Your task to perform on an android device: What's the weather going to be this weekend? Image 0: 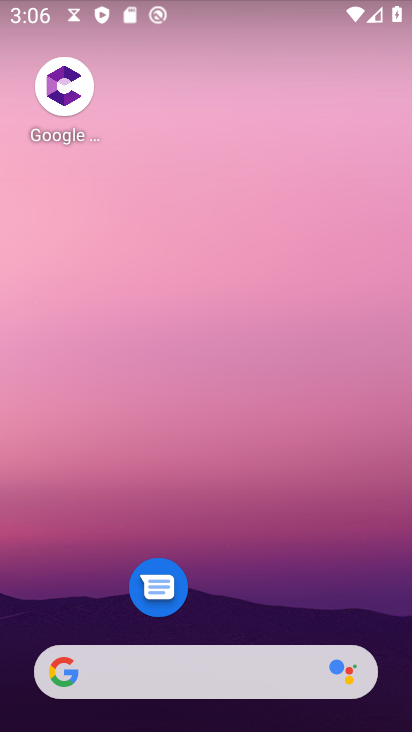
Step 0: drag from (312, 593) to (257, 274)
Your task to perform on an android device: What's the weather going to be this weekend? Image 1: 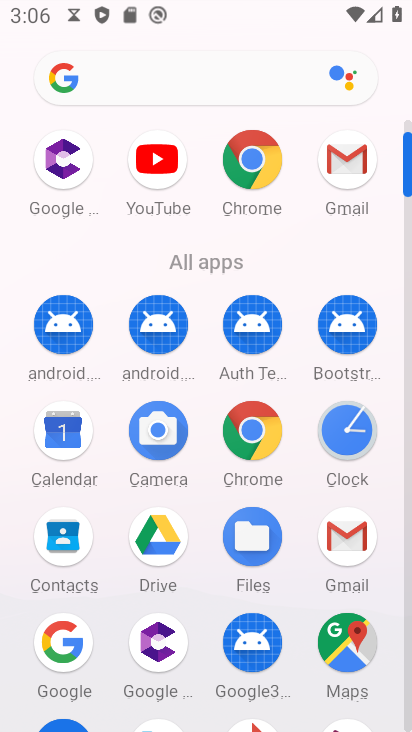
Step 1: press back button
Your task to perform on an android device: What's the weather going to be this weekend? Image 2: 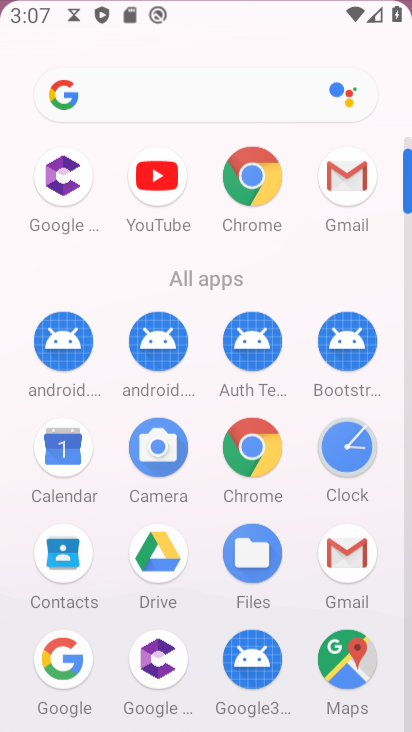
Step 2: press back button
Your task to perform on an android device: What's the weather going to be this weekend? Image 3: 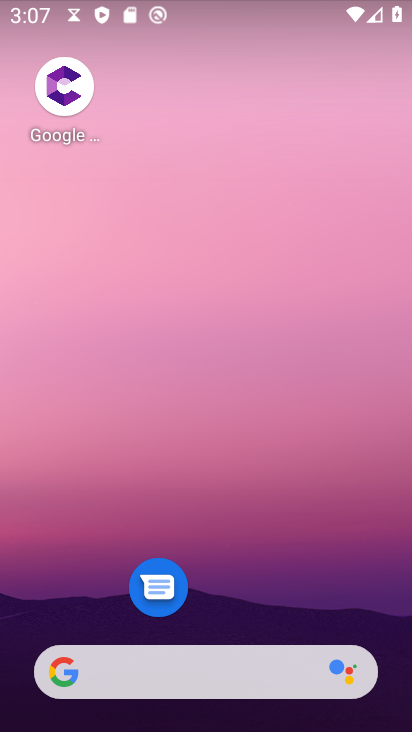
Step 3: press back button
Your task to perform on an android device: What's the weather going to be this weekend? Image 4: 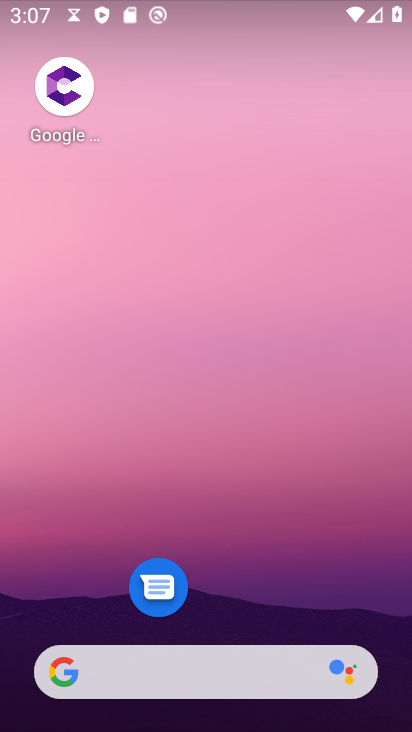
Step 4: drag from (7, 204) to (394, 477)
Your task to perform on an android device: What's the weather going to be this weekend? Image 5: 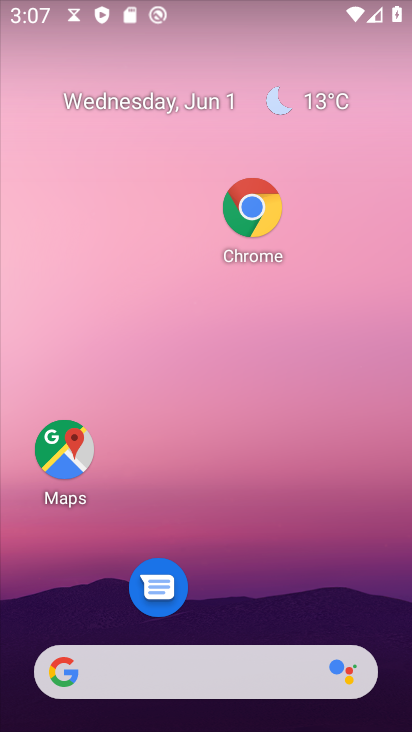
Step 5: drag from (25, 248) to (352, 615)
Your task to perform on an android device: What's the weather going to be this weekend? Image 6: 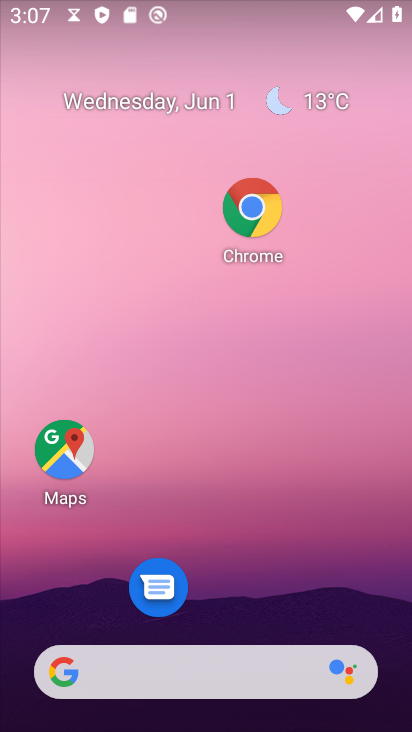
Step 6: drag from (11, 188) to (400, 646)
Your task to perform on an android device: What's the weather going to be this weekend? Image 7: 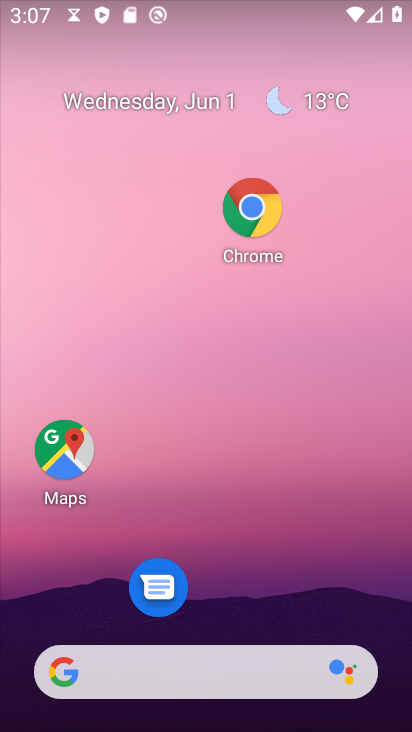
Step 7: drag from (6, 198) to (352, 568)
Your task to perform on an android device: What's the weather going to be this weekend? Image 8: 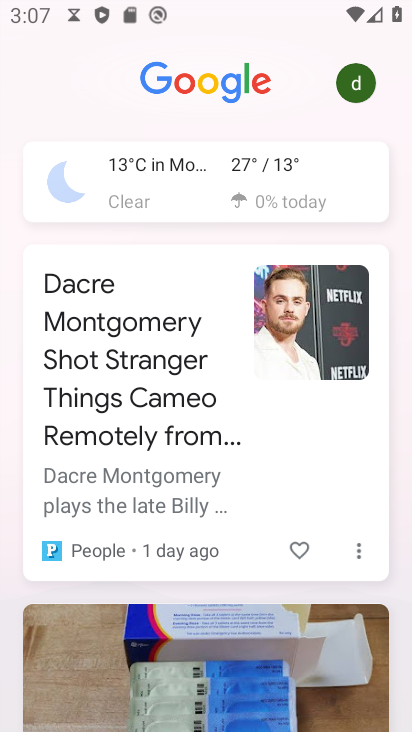
Step 8: click (159, 184)
Your task to perform on an android device: What's the weather going to be this weekend? Image 9: 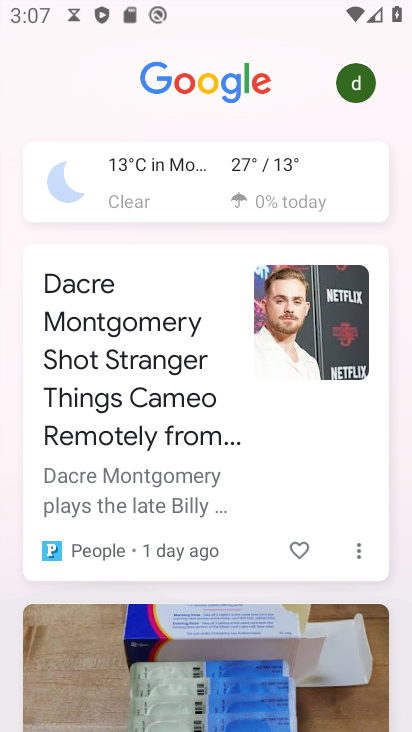
Step 9: click (162, 184)
Your task to perform on an android device: What's the weather going to be this weekend? Image 10: 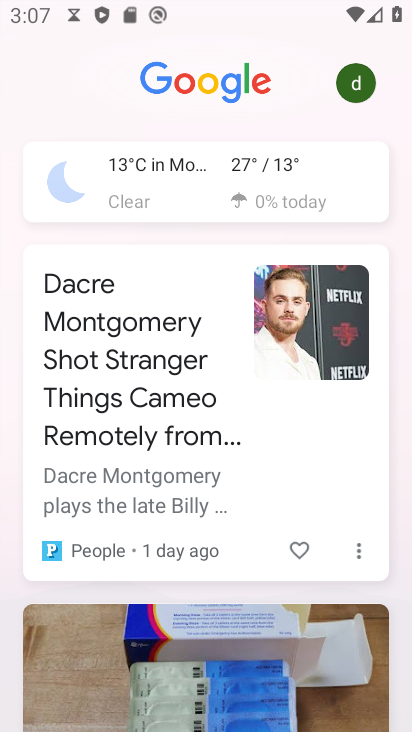
Step 10: click (163, 185)
Your task to perform on an android device: What's the weather going to be this weekend? Image 11: 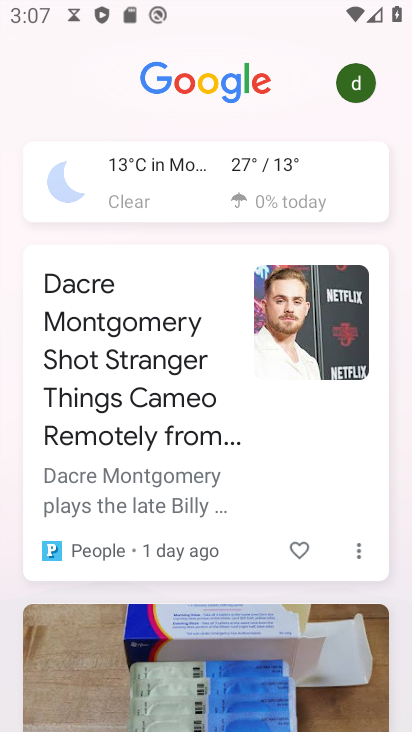
Step 11: click (164, 184)
Your task to perform on an android device: What's the weather going to be this weekend? Image 12: 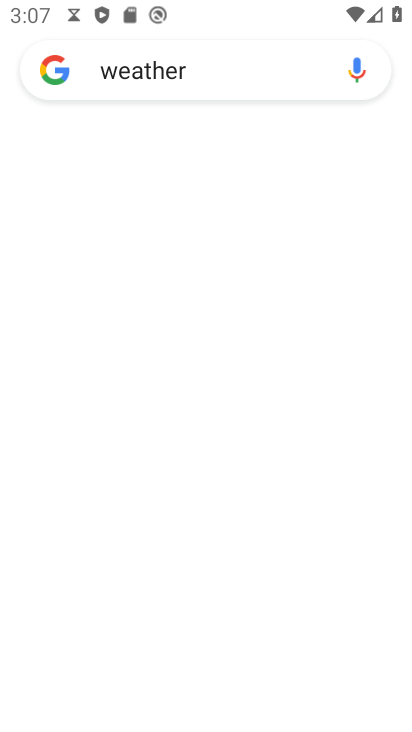
Step 12: click (166, 186)
Your task to perform on an android device: What's the weather going to be this weekend? Image 13: 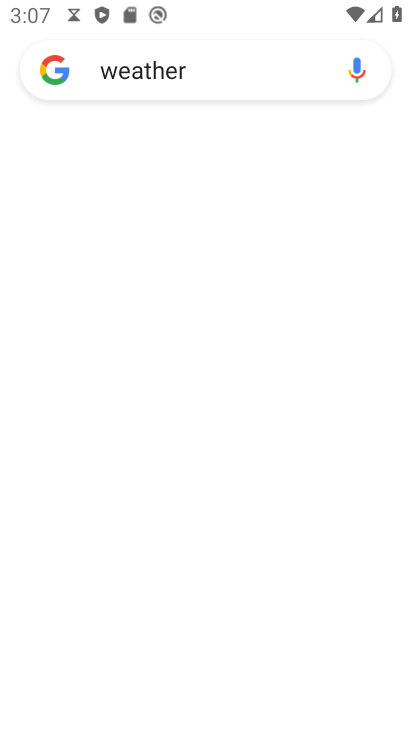
Step 13: click (166, 186)
Your task to perform on an android device: What's the weather going to be this weekend? Image 14: 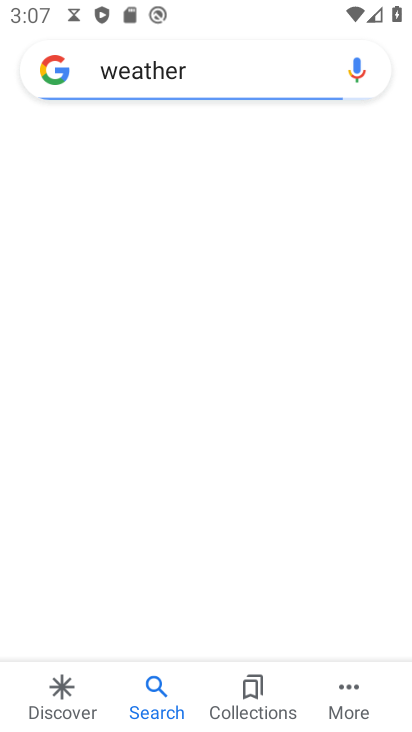
Step 14: click (166, 186)
Your task to perform on an android device: What's the weather going to be this weekend? Image 15: 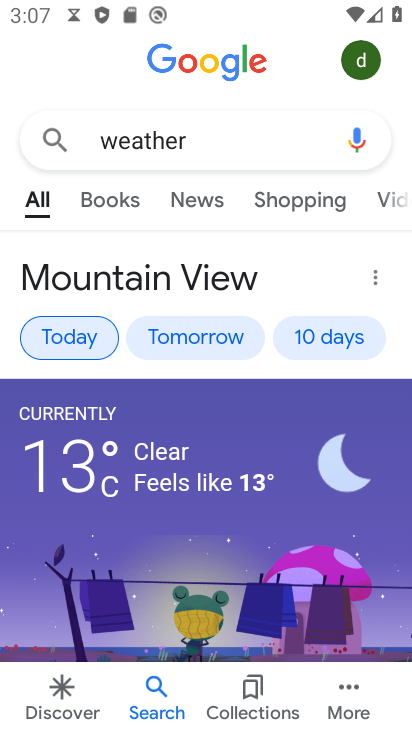
Step 15: click (348, 325)
Your task to perform on an android device: What's the weather going to be this weekend? Image 16: 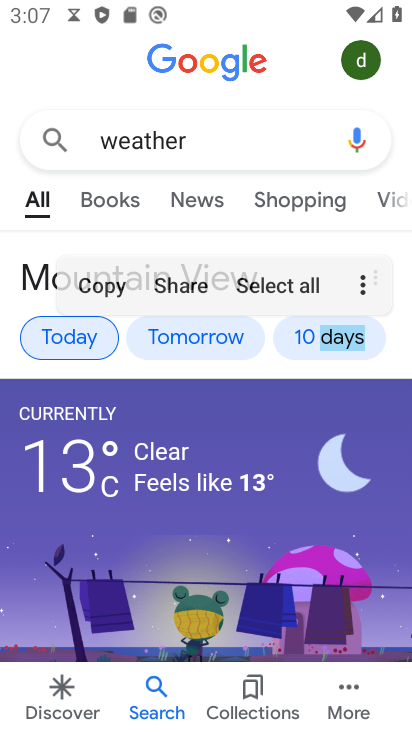
Step 16: click (342, 331)
Your task to perform on an android device: What's the weather going to be this weekend? Image 17: 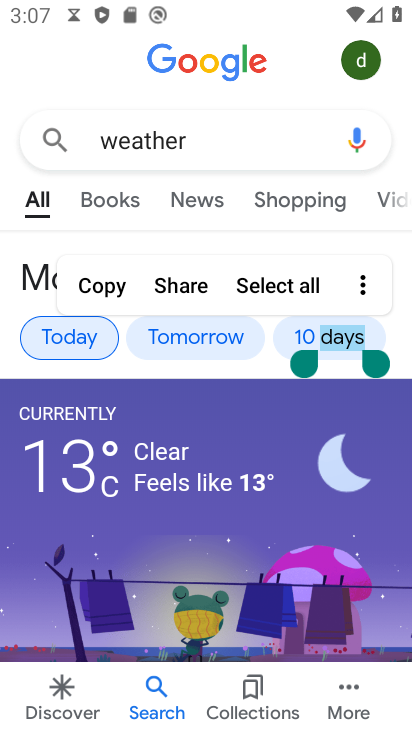
Step 17: click (342, 331)
Your task to perform on an android device: What's the weather going to be this weekend? Image 18: 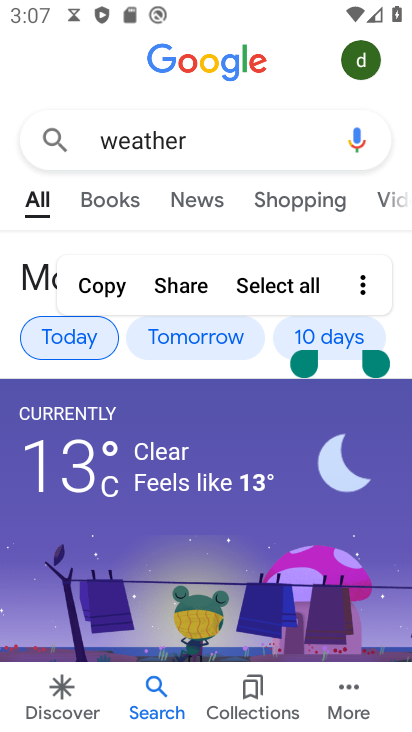
Step 18: click (342, 331)
Your task to perform on an android device: What's the weather going to be this weekend? Image 19: 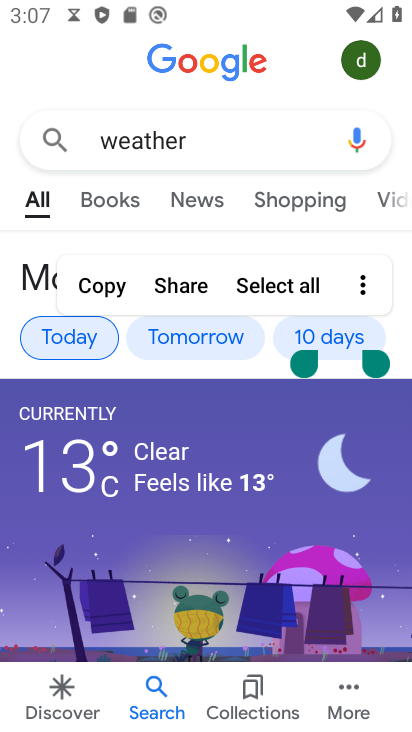
Step 19: click (343, 332)
Your task to perform on an android device: What's the weather going to be this weekend? Image 20: 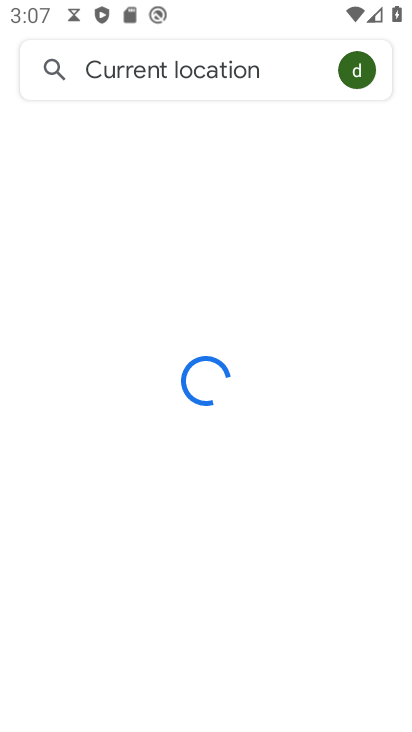
Step 20: click (344, 333)
Your task to perform on an android device: What's the weather going to be this weekend? Image 21: 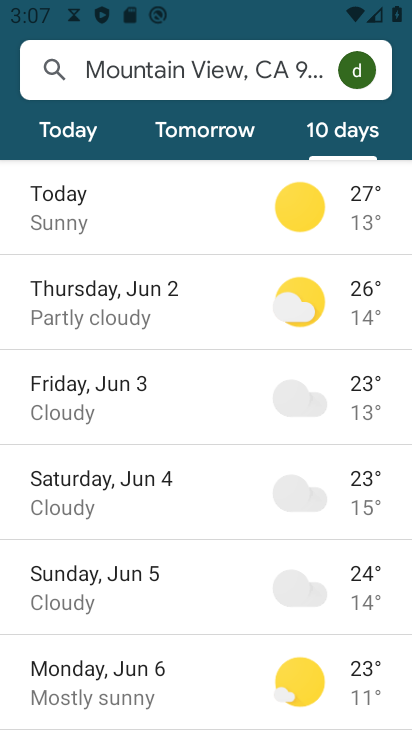
Step 21: drag from (174, 519) to (203, 305)
Your task to perform on an android device: What's the weather going to be this weekend? Image 22: 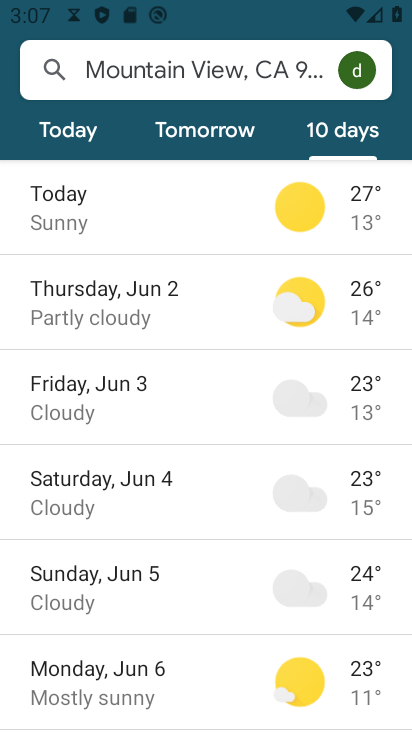
Step 22: drag from (153, 559) to (158, 251)
Your task to perform on an android device: What's the weather going to be this weekend? Image 23: 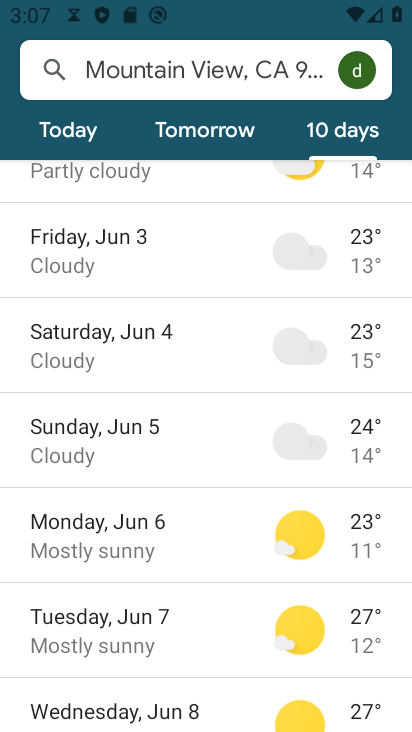
Step 23: drag from (166, 514) to (163, 317)
Your task to perform on an android device: What's the weather going to be this weekend? Image 24: 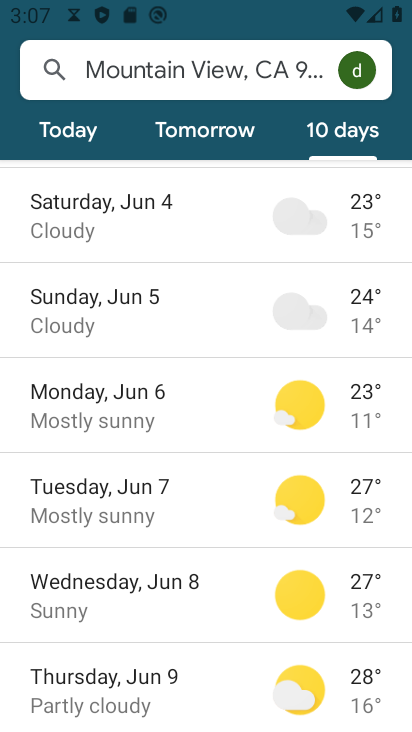
Step 24: drag from (159, 551) to (164, 353)
Your task to perform on an android device: What's the weather going to be this weekend? Image 25: 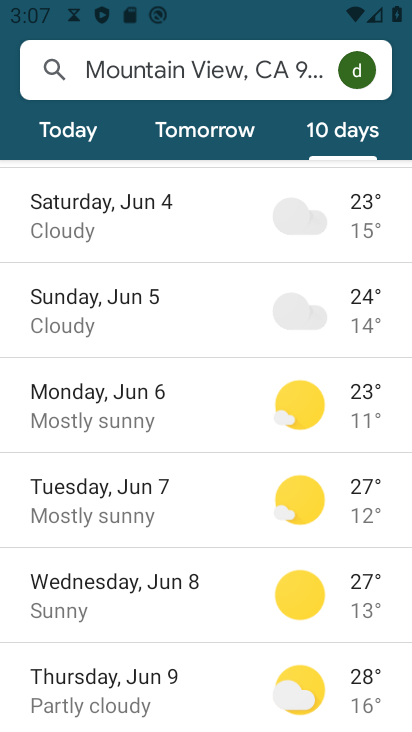
Step 25: drag from (203, 502) to (214, 304)
Your task to perform on an android device: What's the weather going to be this weekend? Image 26: 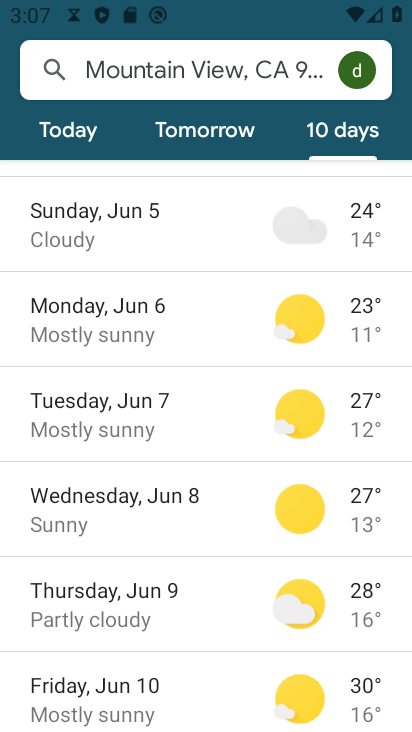
Step 26: drag from (176, 532) to (179, 292)
Your task to perform on an android device: What's the weather going to be this weekend? Image 27: 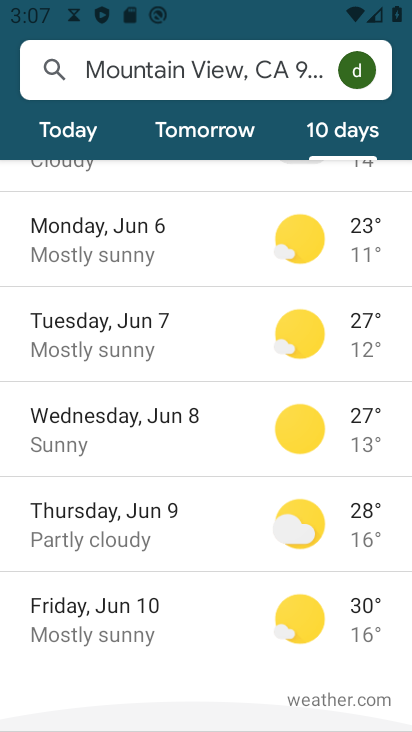
Step 27: drag from (192, 454) to (215, 257)
Your task to perform on an android device: What's the weather going to be this weekend? Image 28: 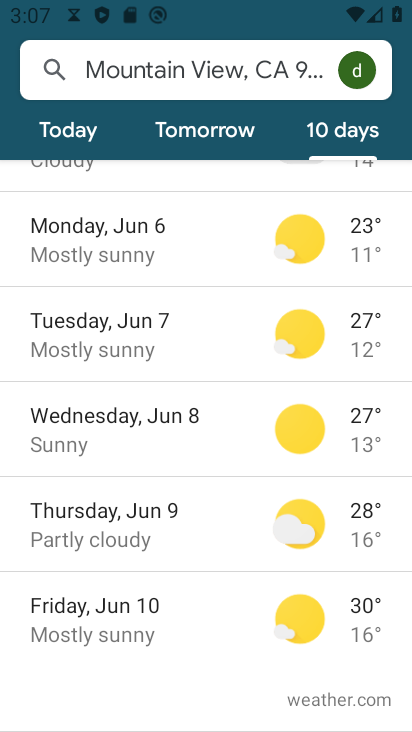
Step 28: drag from (213, 496) to (237, 236)
Your task to perform on an android device: What's the weather going to be this weekend? Image 29: 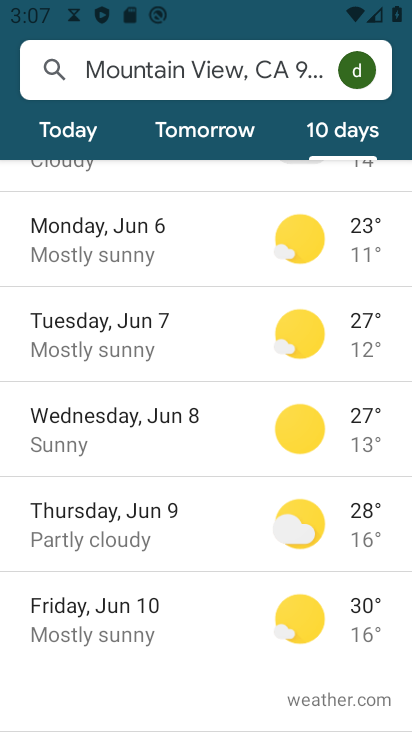
Step 29: drag from (173, 566) to (160, 355)
Your task to perform on an android device: What's the weather going to be this weekend? Image 30: 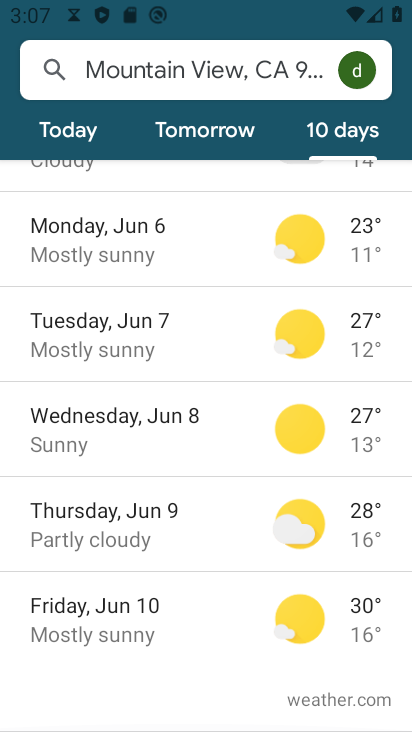
Step 30: click (173, 350)
Your task to perform on an android device: What's the weather going to be this weekend? Image 31: 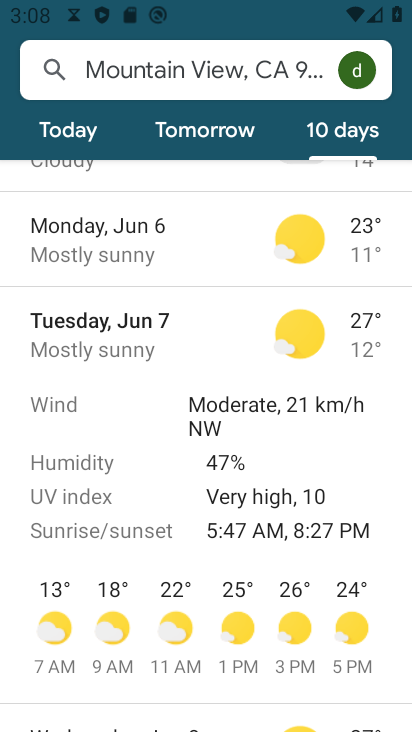
Step 31: task complete